Your task to perform on an android device: Search for vegetarian restaurants on Maps Image 0: 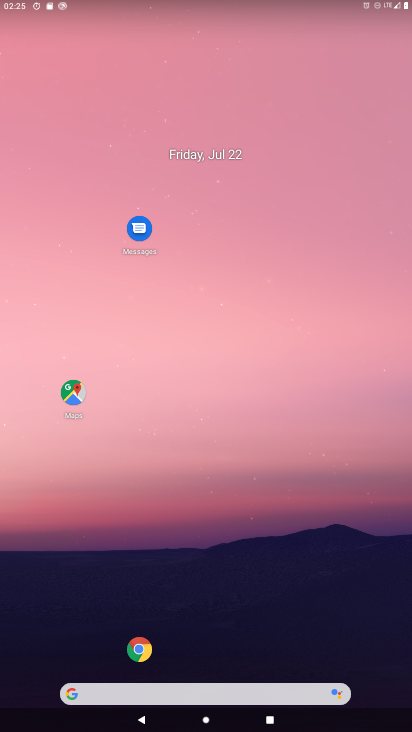
Step 0: click (73, 395)
Your task to perform on an android device: Search for vegetarian restaurants on Maps Image 1: 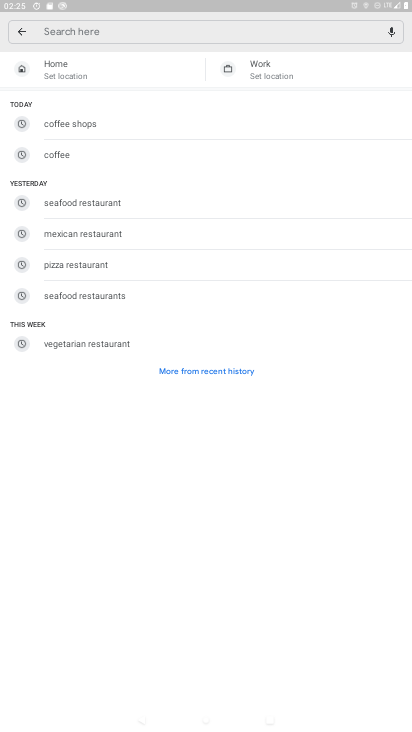
Step 1: click (25, 33)
Your task to perform on an android device: Search for vegetarian restaurants on Maps Image 2: 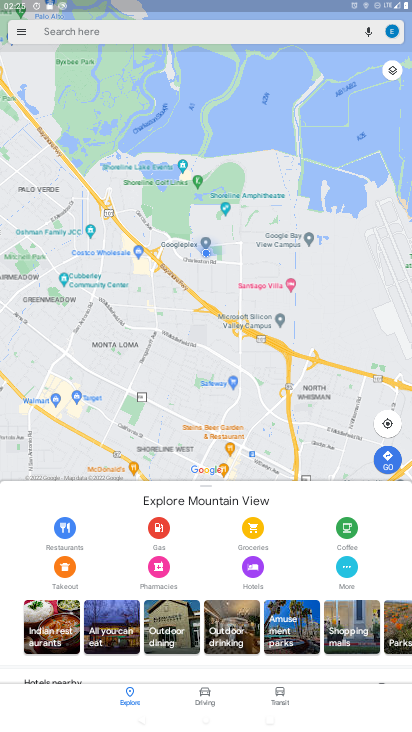
Step 2: click (56, 28)
Your task to perform on an android device: Search for vegetarian restaurants on Maps Image 3: 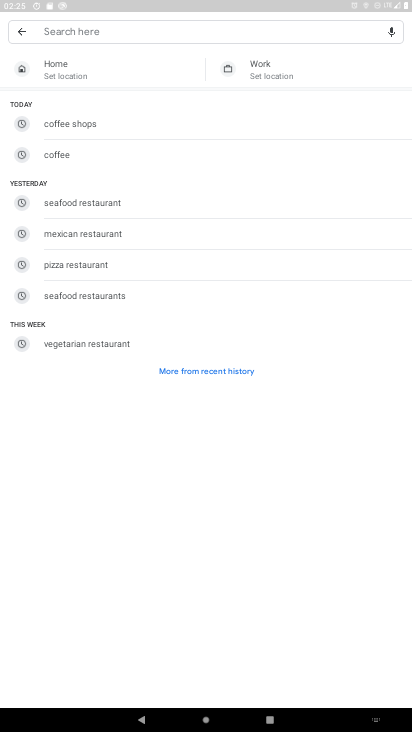
Step 3: click (73, 339)
Your task to perform on an android device: Search for vegetarian restaurants on Maps Image 4: 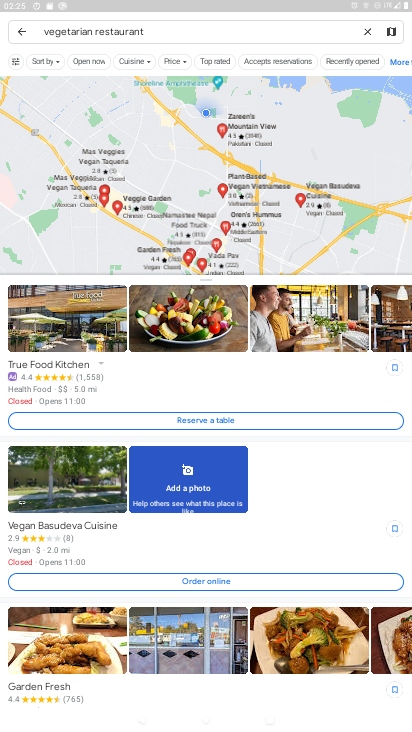
Step 4: task complete